Your task to perform on an android device: change the clock display to show seconds Image 0: 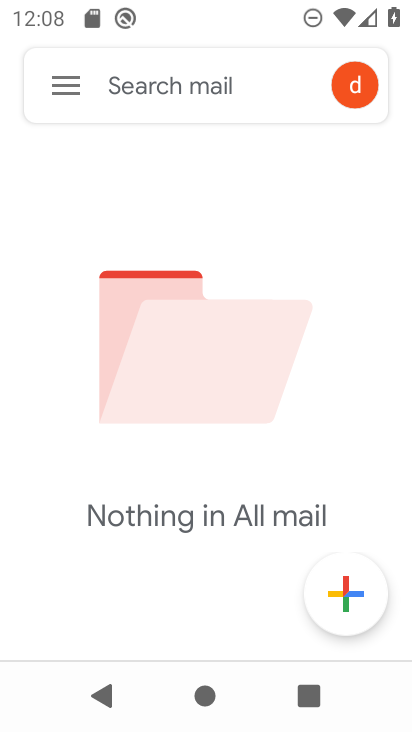
Step 0: press home button
Your task to perform on an android device: change the clock display to show seconds Image 1: 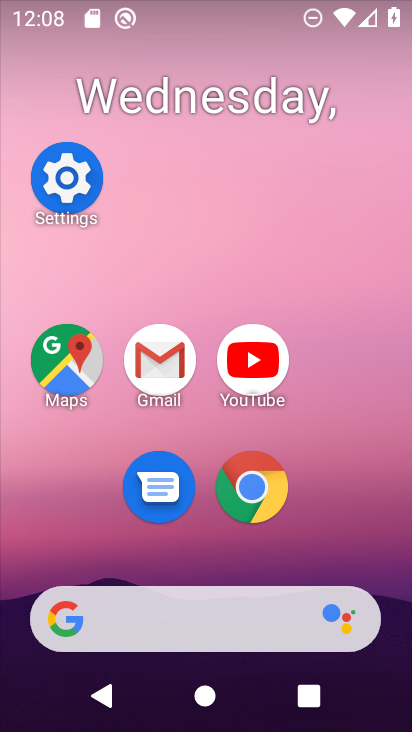
Step 1: drag from (361, 539) to (341, 113)
Your task to perform on an android device: change the clock display to show seconds Image 2: 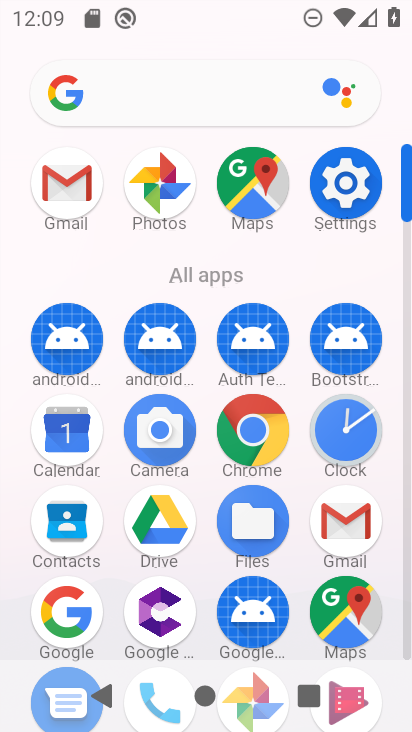
Step 2: drag from (325, 437) to (175, 217)
Your task to perform on an android device: change the clock display to show seconds Image 3: 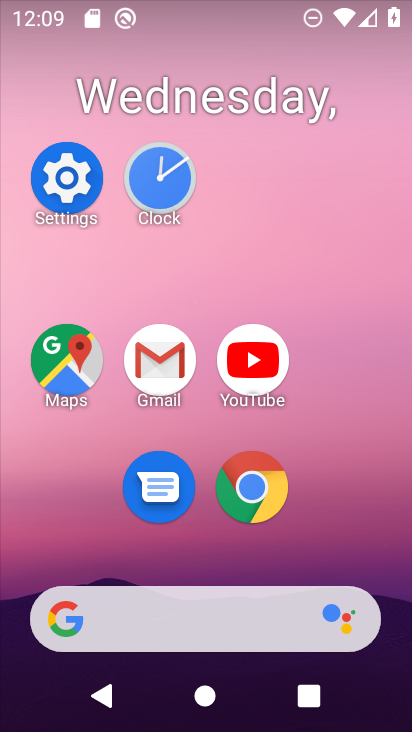
Step 3: click (169, 195)
Your task to perform on an android device: change the clock display to show seconds Image 4: 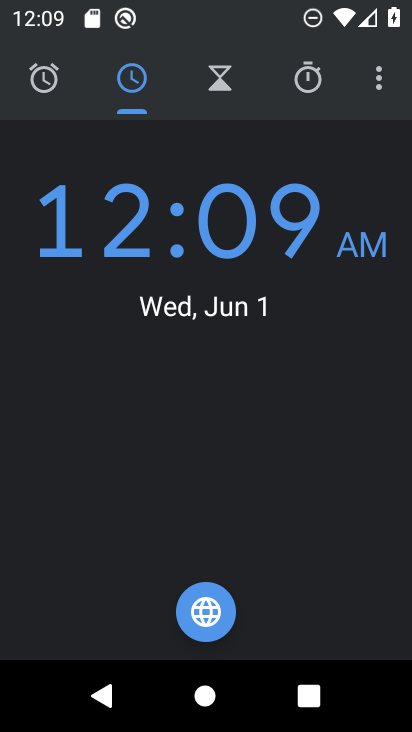
Step 4: click (380, 89)
Your task to perform on an android device: change the clock display to show seconds Image 5: 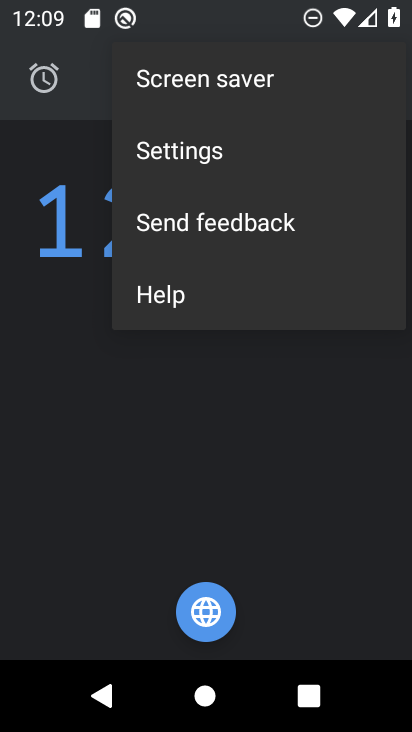
Step 5: click (262, 145)
Your task to perform on an android device: change the clock display to show seconds Image 6: 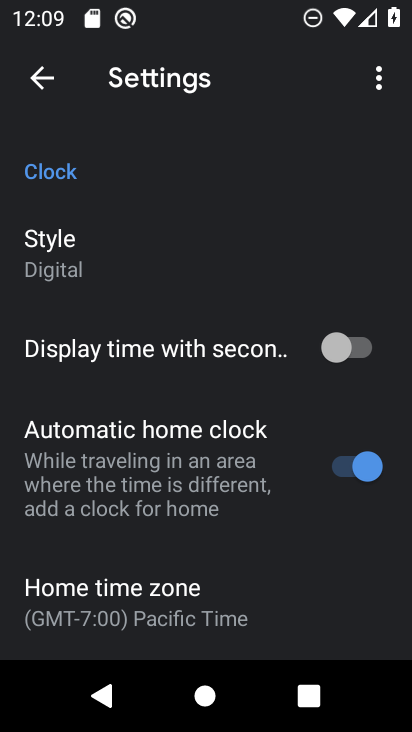
Step 6: click (234, 349)
Your task to perform on an android device: change the clock display to show seconds Image 7: 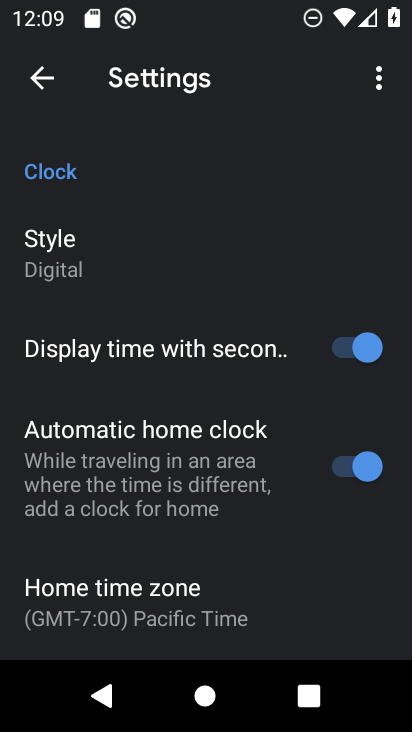
Step 7: task complete